Your task to perform on an android device: create a new album in the google photos Image 0: 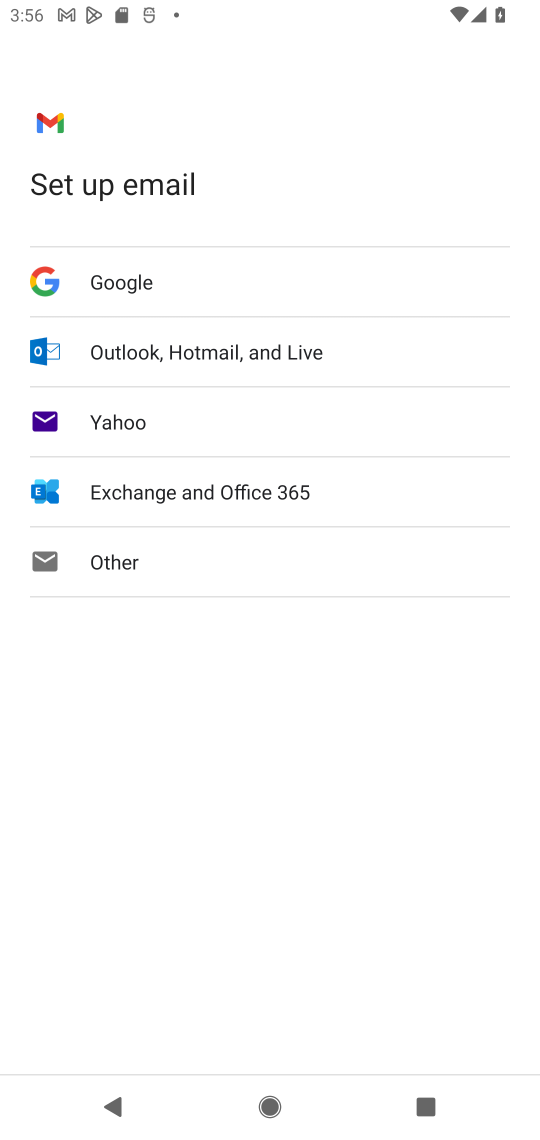
Step 0: press home button
Your task to perform on an android device: create a new album in the google photos Image 1: 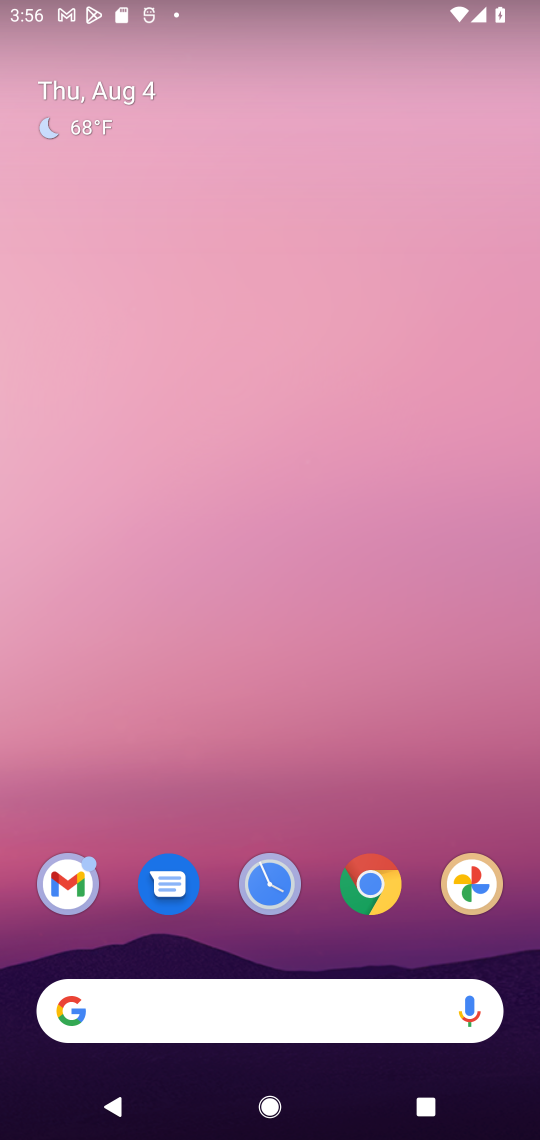
Step 1: click (319, 958)
Your task to perform on an android device: create a new album in the google photos Image 2: 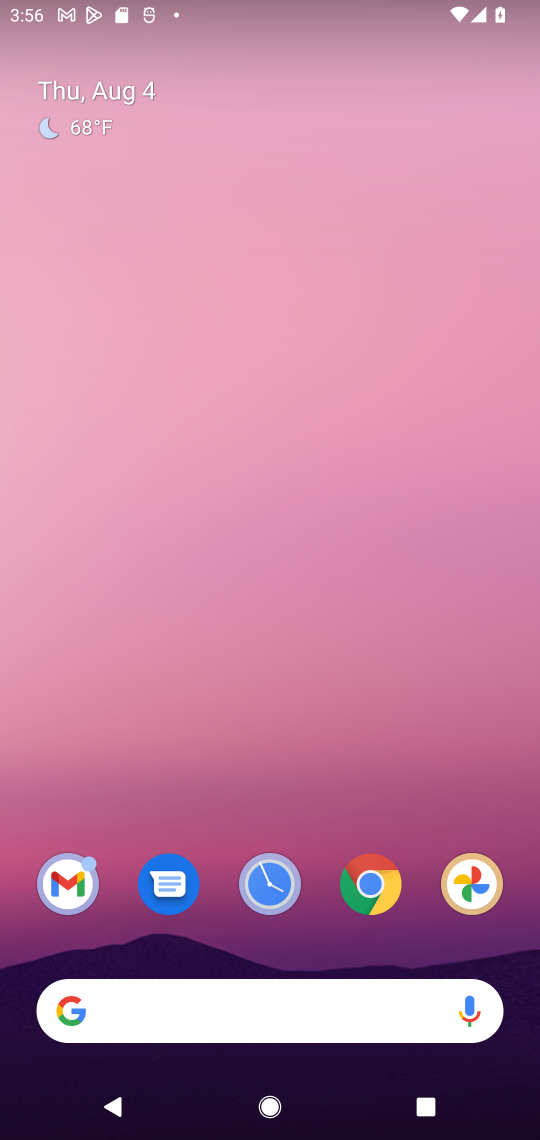
Step 2: drag from (319, 958) to (273, 213)
Your task to perform on an android device: create a new album in the google photos Image 3: 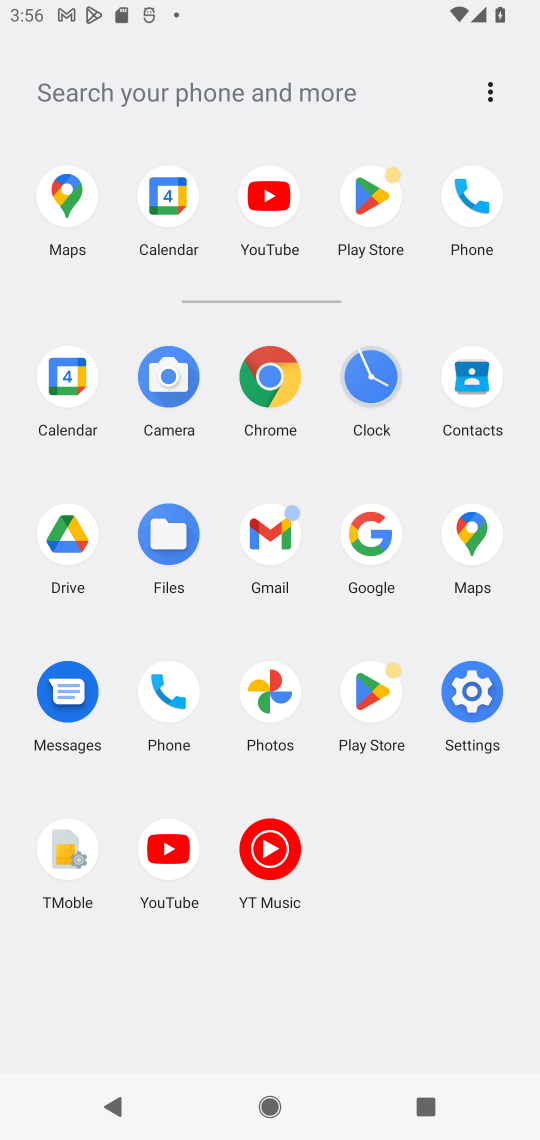
Step 3: click (275, 685)
Your task to perform on an android device: create a new album in the google photos Image 4: 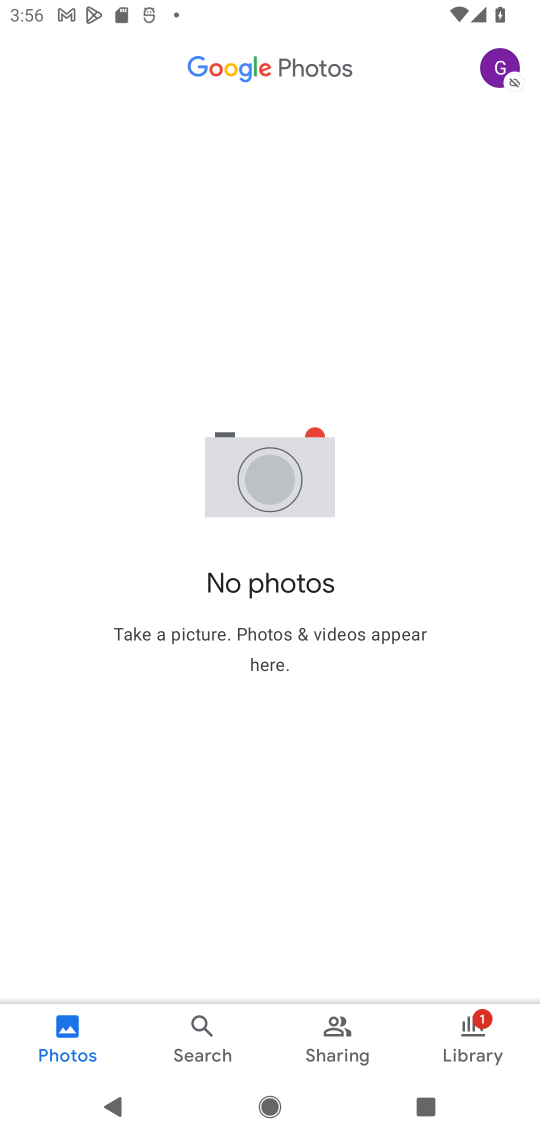
Step 4: task complete